Your task to perform on an android device: Open Android settings Image 0: 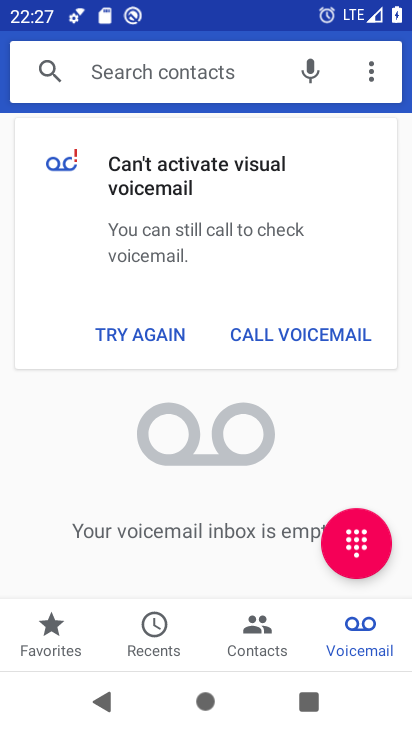
Step 0: press home button
Your task to perform on an android device: Open Android settings Image 1: 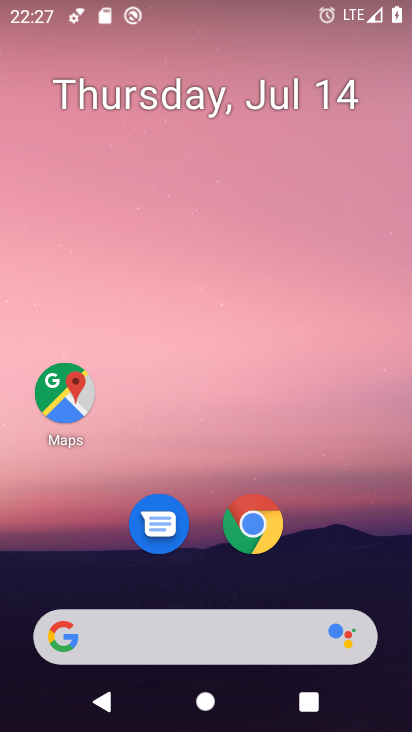
Step 1: drag from (329, 567) to (318, 42)
Your task to perform on an android device: Open Android settings Image 2: 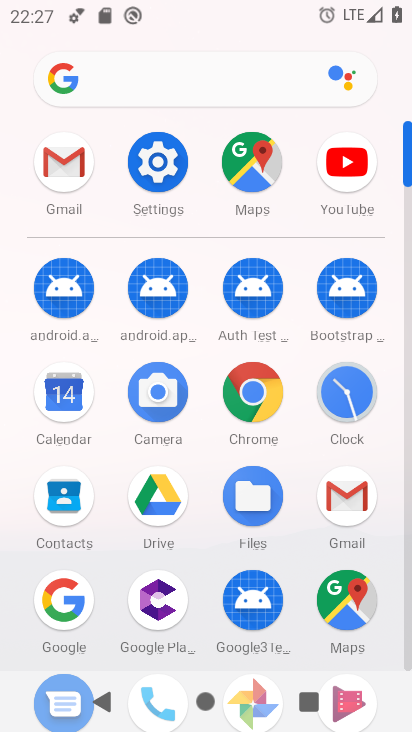
Step 2: click (170, 160)
Your task to perform on an android device: Open Android settings Image 3: 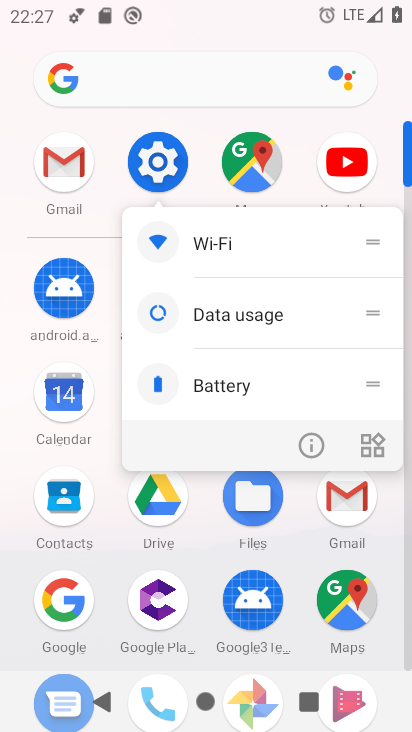
Step 3: click (168, 154)
Your task to perform on an android device: Open Android settings Image 4: 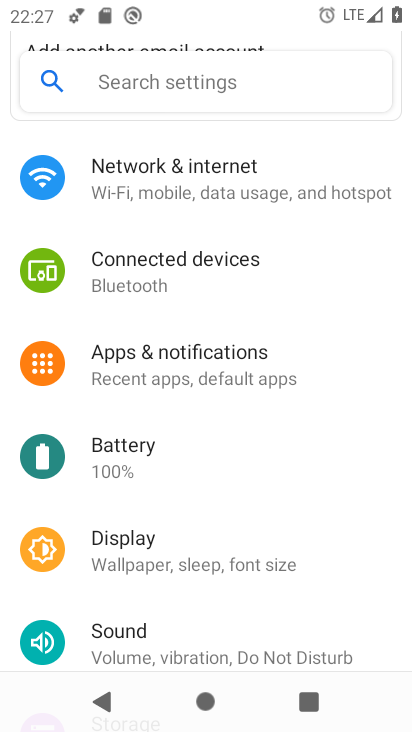
Step 4: drag from (225, 520) to (234, 45)
Your task to perform on an android device: Open Android settings Image 5: 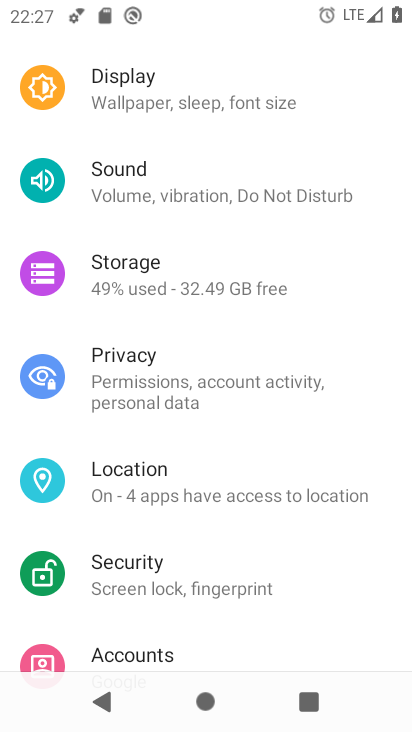
Step 5: drag from (219, 543) to (225, 63)
Your task to perform on an android device: Open Android settings Image 6: 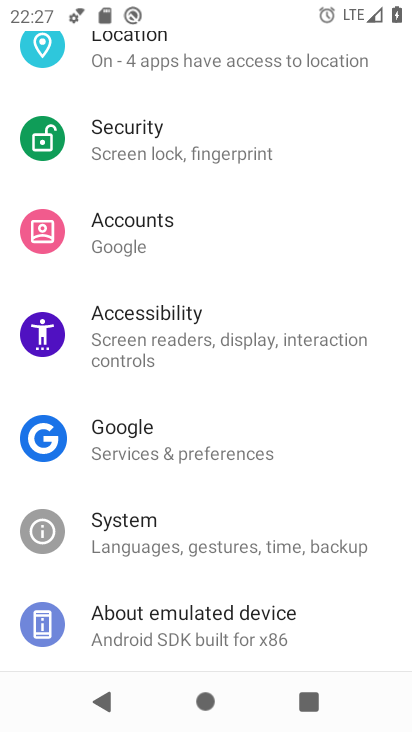
Step 6: click (214, 634)
Your task to perform on an android device: Open Android settings Image 7: 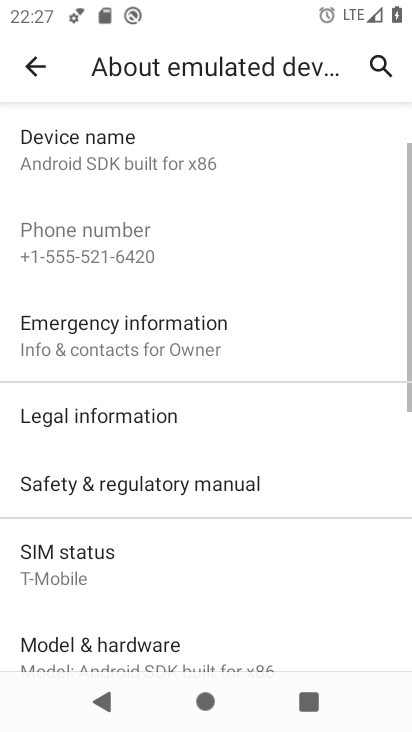
Step 7: task complete